Your task to perform on an android device: choose inbox layout in the gmail app Image 0: 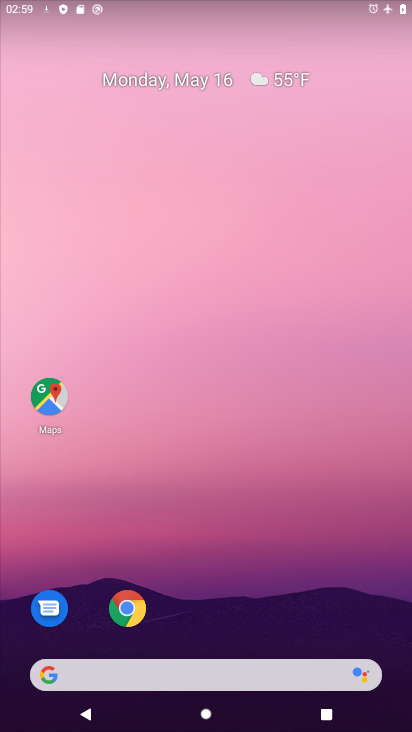
Step 0: drag from (198, 635) to (212, 214)
Your task to perform on an android device: choose inbox layout in the gmail app Image 1: 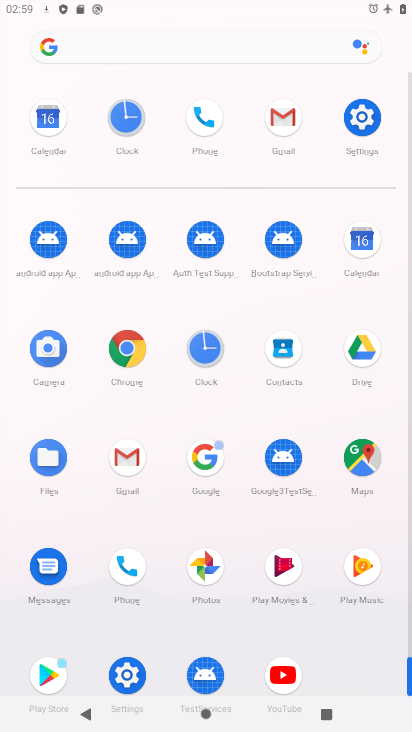
Step 1: click (287, 132)
Your task to perform on an android device: choose inbox layout in the gmail app Image 2: 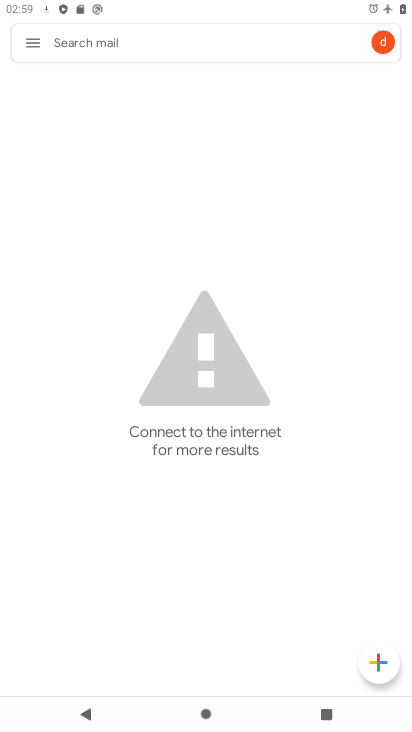
Step 2: click (36, 44)
Your task to perform on an android device: choose inbox layout in the gmail app Image 3: 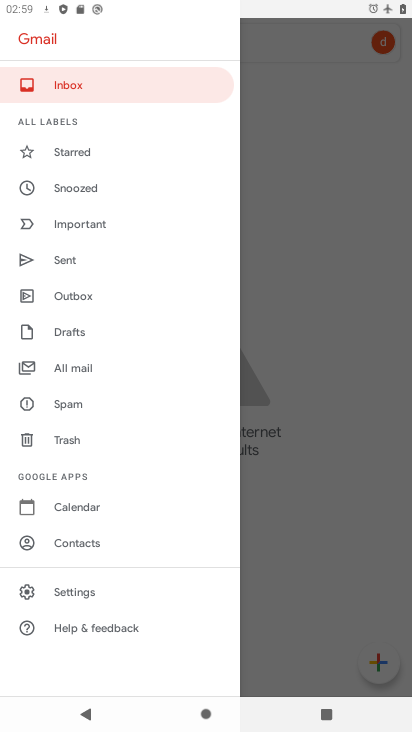
Step 3: click (52, 585)
Your task to perform on an android device: choose inbox layout in the gmail app Image 4: 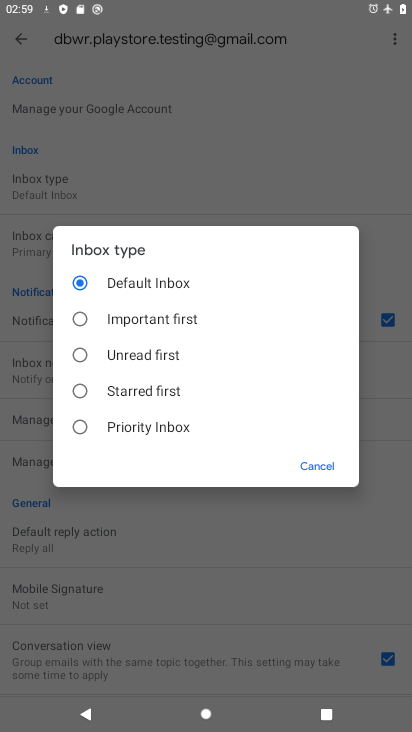
Step 4: click (135, 428)
Your task to perform on an android device: choose inbox layout in the gmail app Image 5: 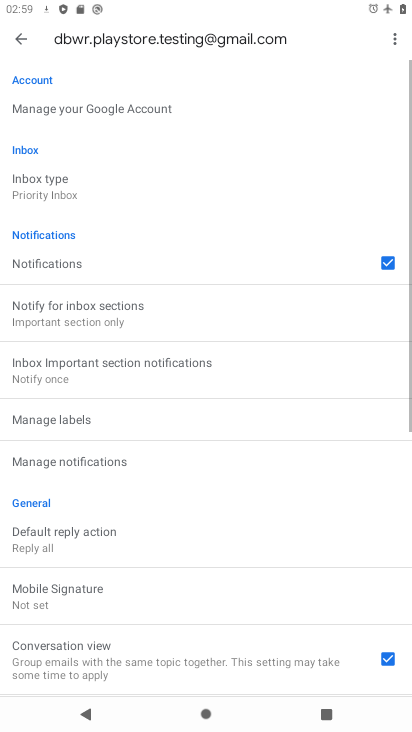
Step 5: task complete